Your task to perform on an android device: Show me popular games on the Play Store Image 0: 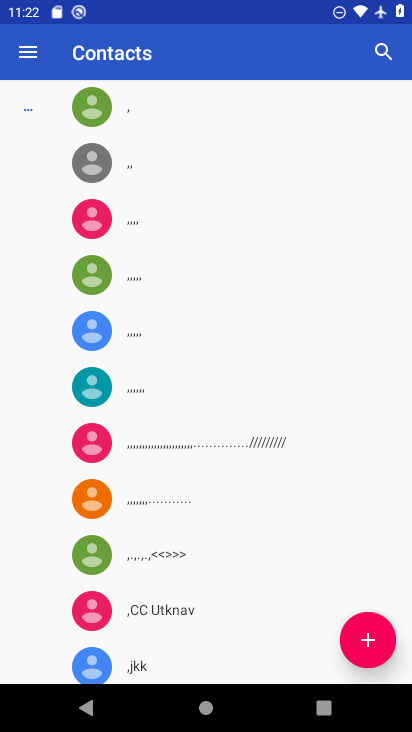
Step 0: press home button
Your task to perform on an android device: Show me popular games on the Play Store Image 1: 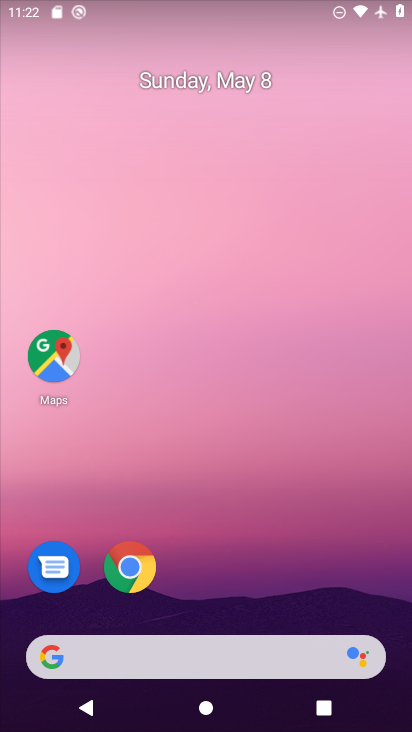
Step 1: drag from (227, 586) to (222, 223)
Your task to perform on an android device: Show me popular games on the Play Store Image 2: 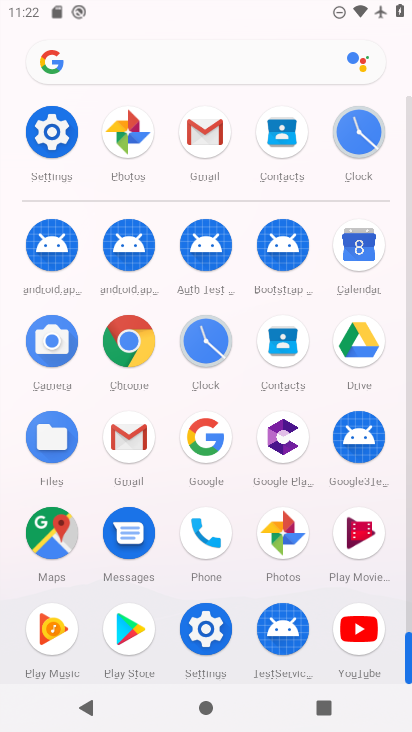
Step 2: click (142, 641)
Your task to perform on an android device: Show me popular games on the Play Store Image 3: 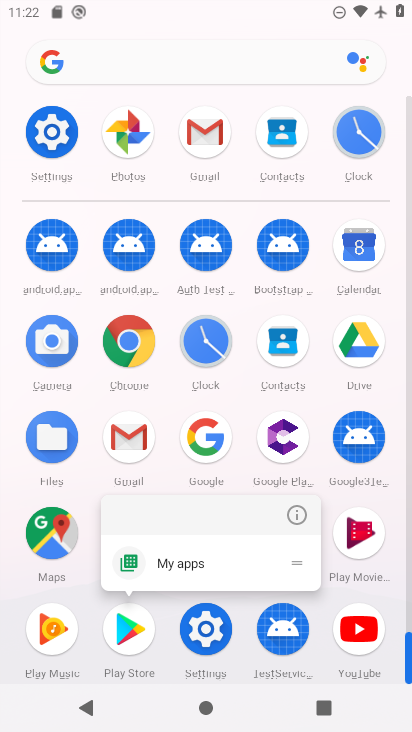
Step 3: click (136, 638)
Your task to perform on an android device: Show me popular games on the Play Store Image 4: 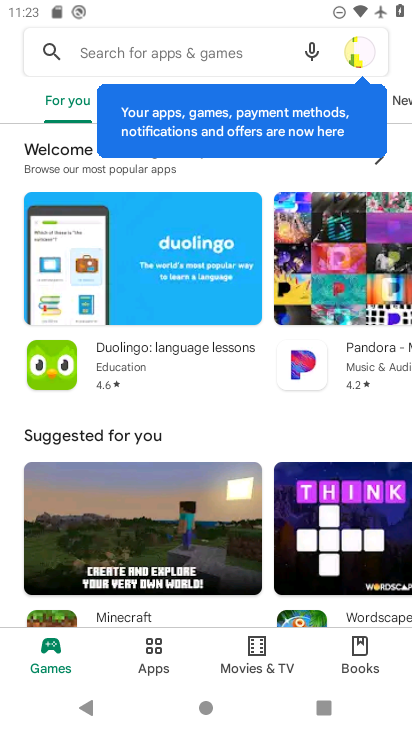
Step 4: task complete